Your task to perform on an android device: Open Chrome and go to settings Image 0: 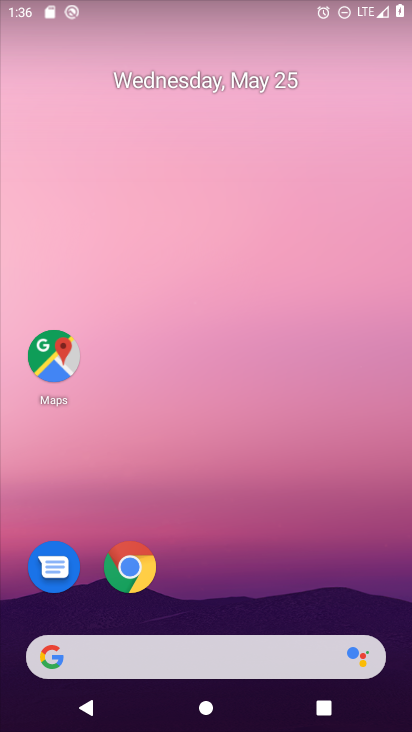
Step 0: click (123, 564)
Your task to perform on an android device: Open Chrome and go to settings Image 1: 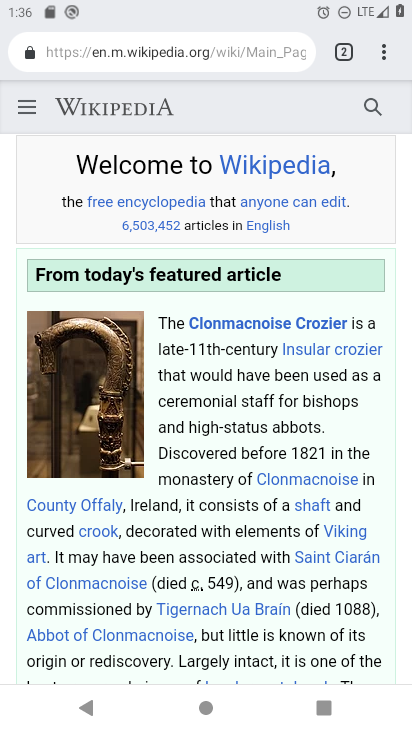
Step 1: click (385, 45)
Your task to perform on an android device: Open Chrome and go to settings Image 2: 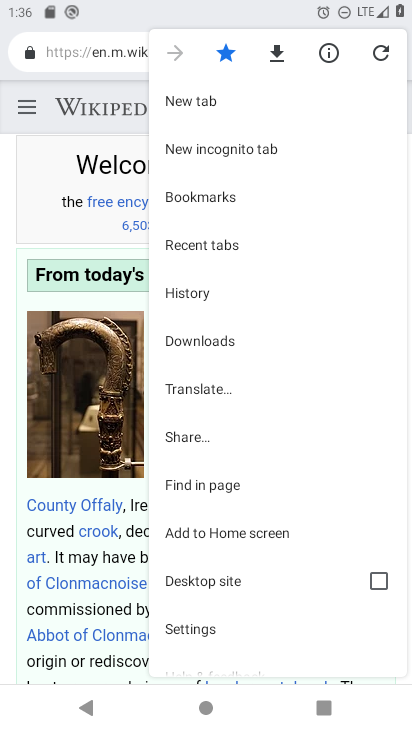
Step 2: click (198, 632)
Your task to perform on an android device: Open Chrome and go to settings Image 3: 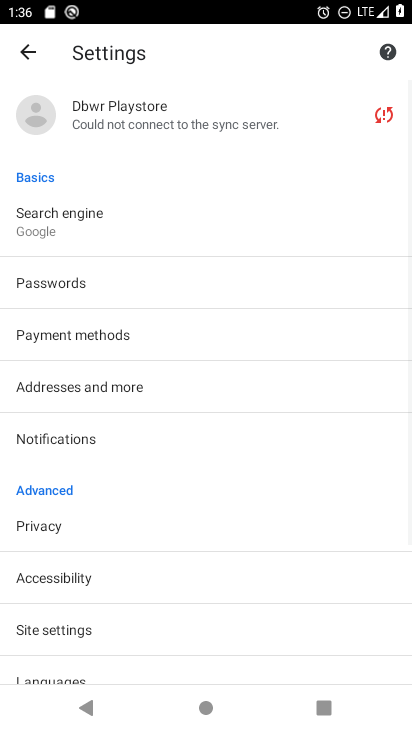
Step 3: task complete